Your task to perform on an android device: Find coffee shops on Maps Image 0: 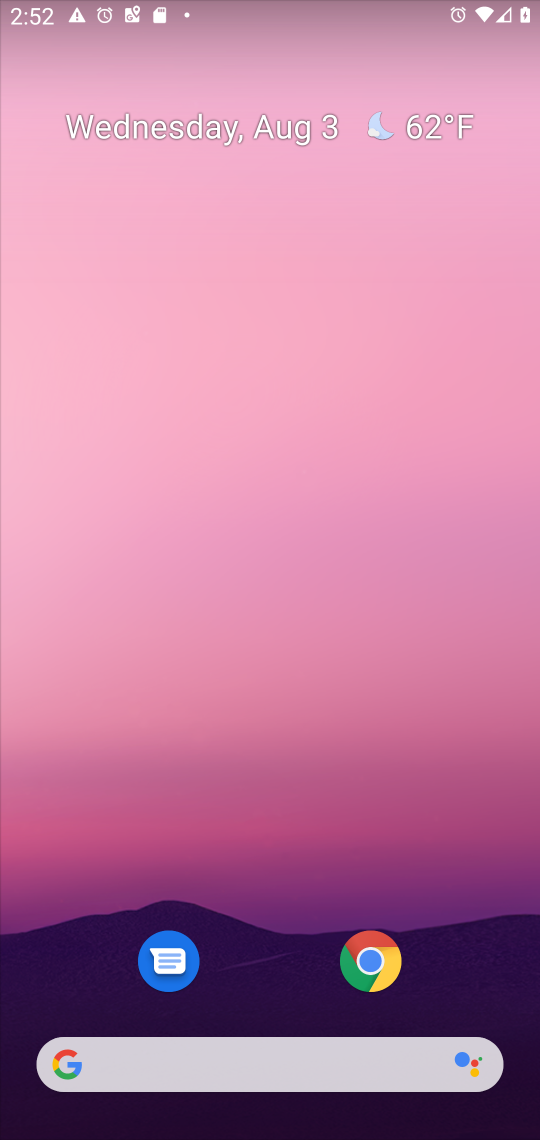
Step 0: drag from (269, 955) to (325, 23)
Your task to perform on an android device: Find coffee shops on Maps Image 1: 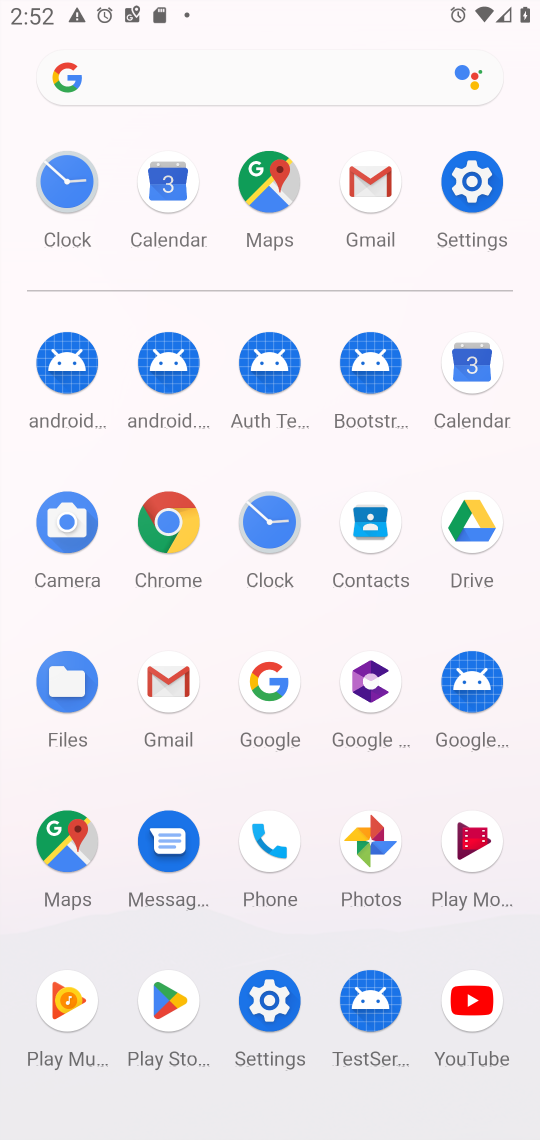
Step 1: click (264, 193)
Your task to perform on an android device: Find coffee shops on Maps Image 2: 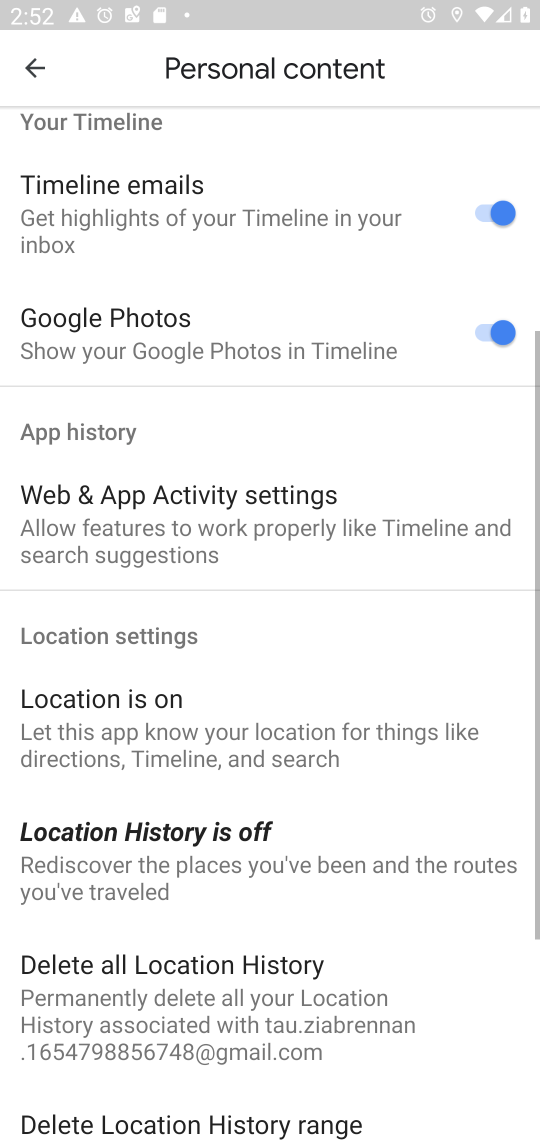
Step 2: click (28, 61)
Your task to perform on an android device: Find coffee shops on Maps Image 3: 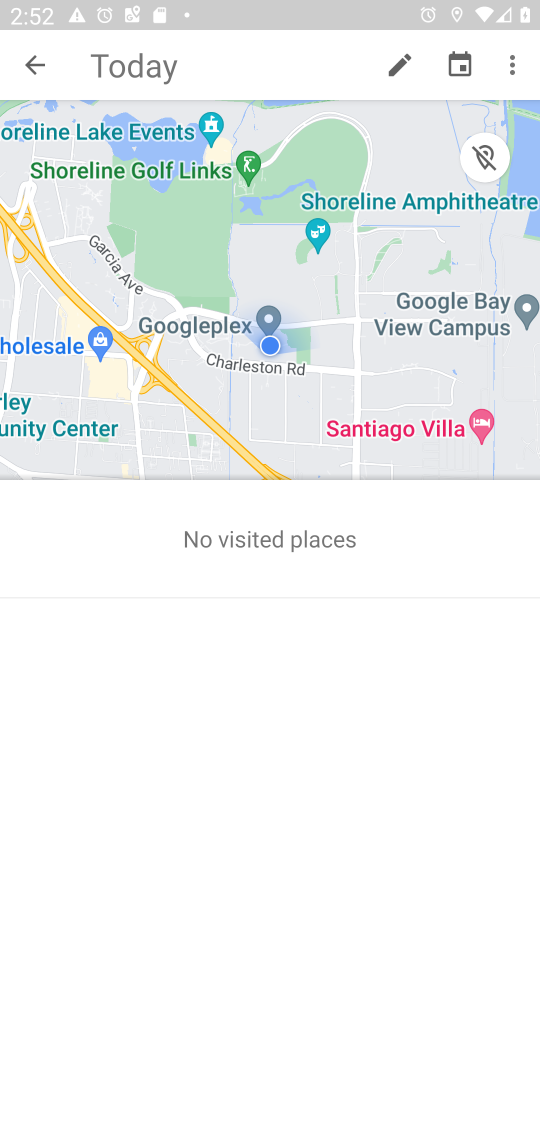
Step 3: click (39, 65)
Your task to perform on an android device: Find coffee shops on Maps Image 4: 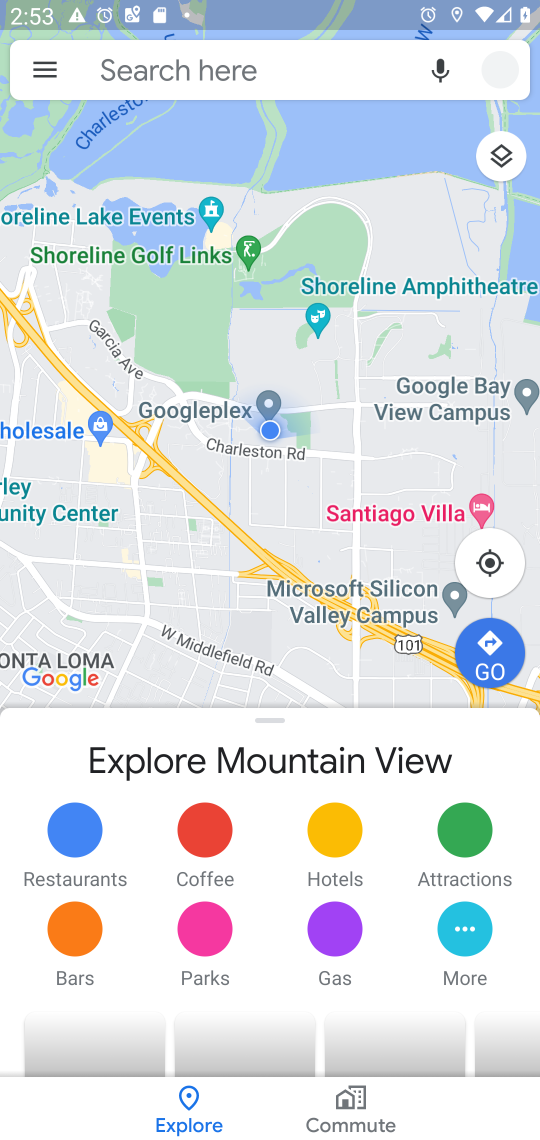
Step 4: click (117, 69)
Your task to perform on an android device: Find coffee shops on Maps Image 5: 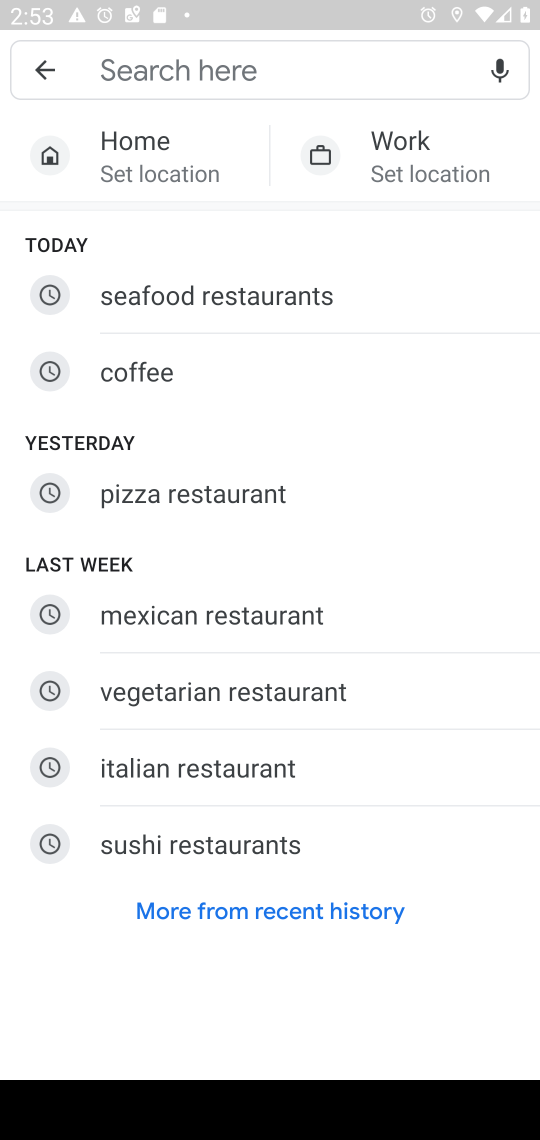
Step 5: type "coffe shop"
Your task to perform on an android device: Find coffee shops on Maps Image 6: 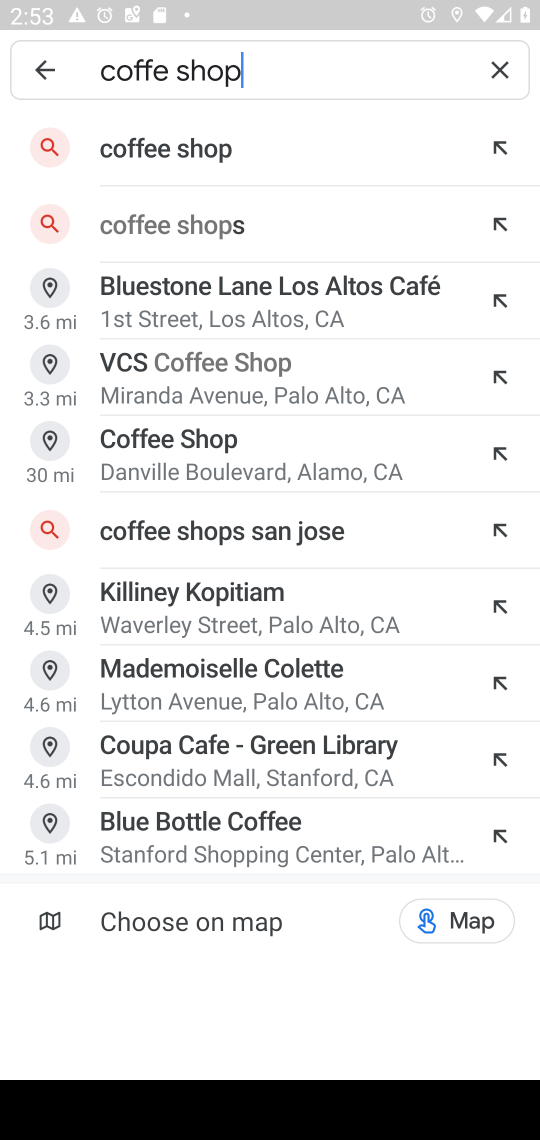
Step 6: click (141, 156)
Your task to perform on an android device: Find coffee shops on Maps Image 7: 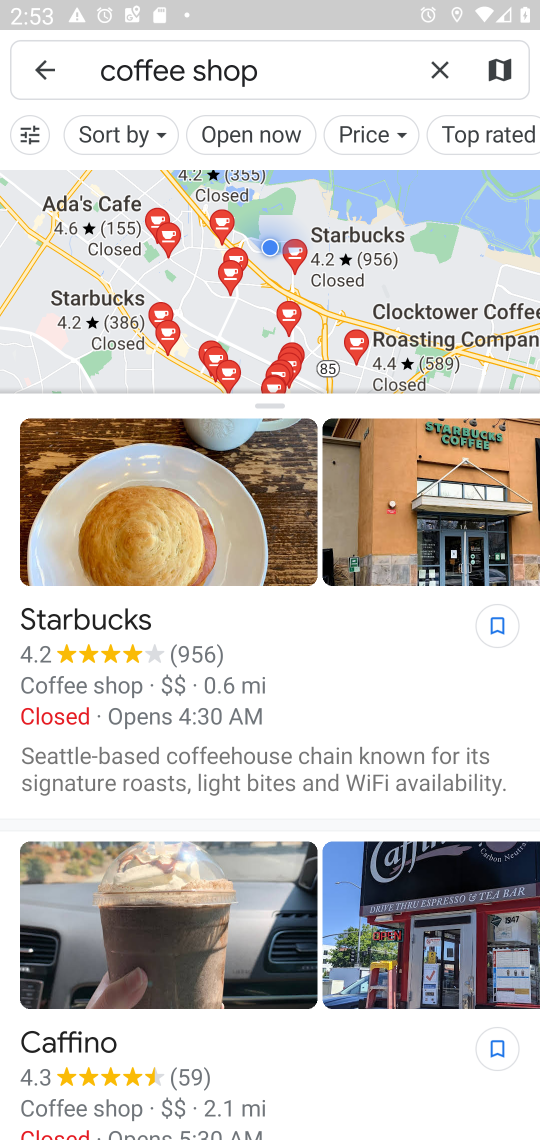
Step 7: task complete